Your task to perform on an android device: turn pop-ups on in chrome Image 0: 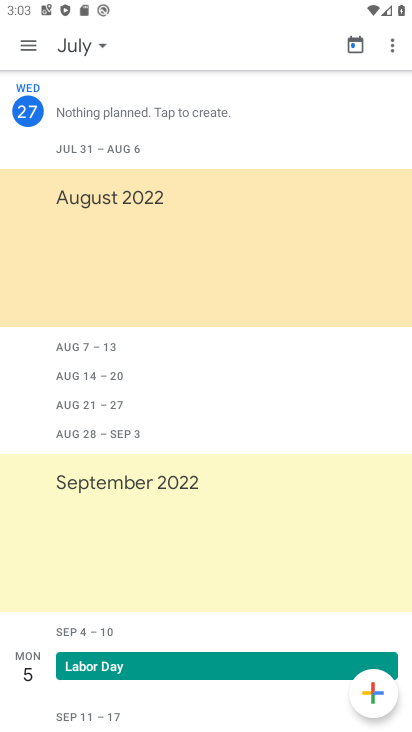
Step 0: press back button
Your task to perform on an android device: turn pop-ups on in chrome Image 1: 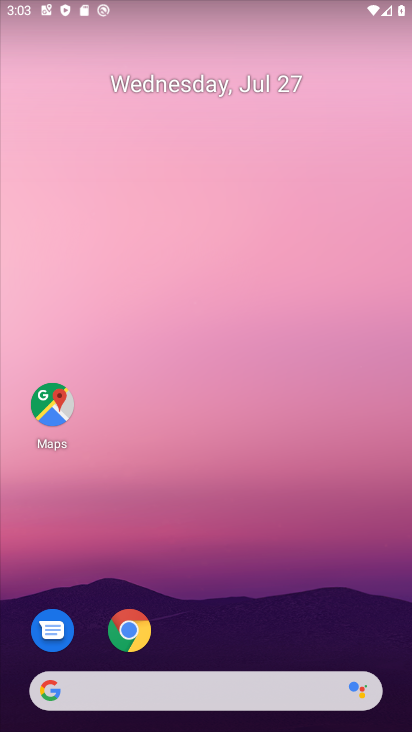
Step 1: drag from (213, 471) to (140, 139)
Your task to perform on an android device: turn pop-ups on in chrome Image 2: 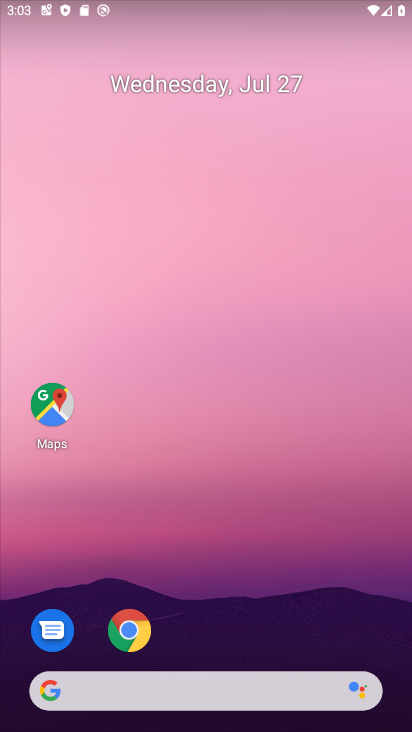
Step 2: drag from (189, 530) to (161, 181)
Your task to perform on an android device: turn pop-ups on in chrome Image 3: 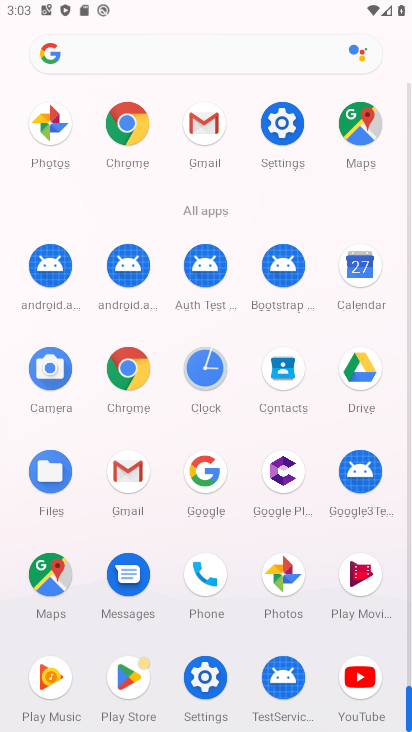
Step 3: click (123, 117)
Your task to perform on an android device: turn pop-ups on in chrome Image 4: 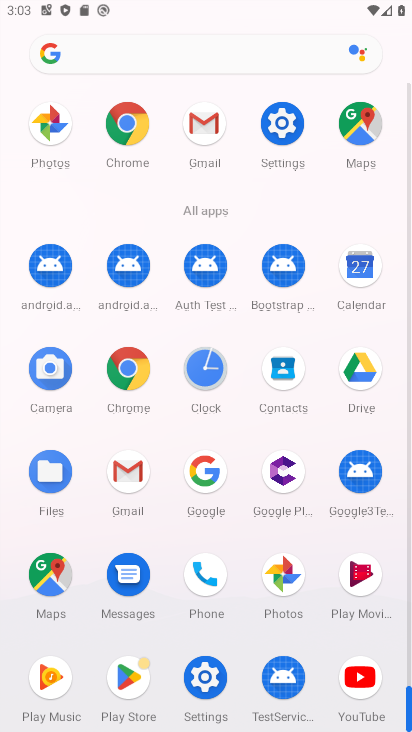
Step 4: click (123, 117)
Your task to perform on an android device: turn pop-ups on in chrome Image 5: 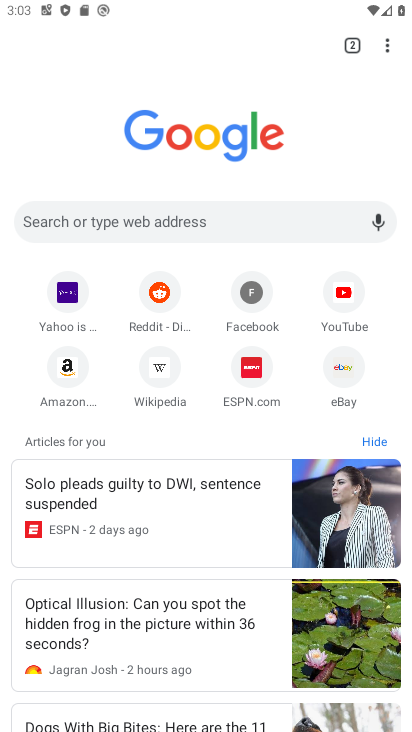
Step 5: click (383, 47)
Your task to perform on an android device: turn pop-ups on in chrome Image 6: 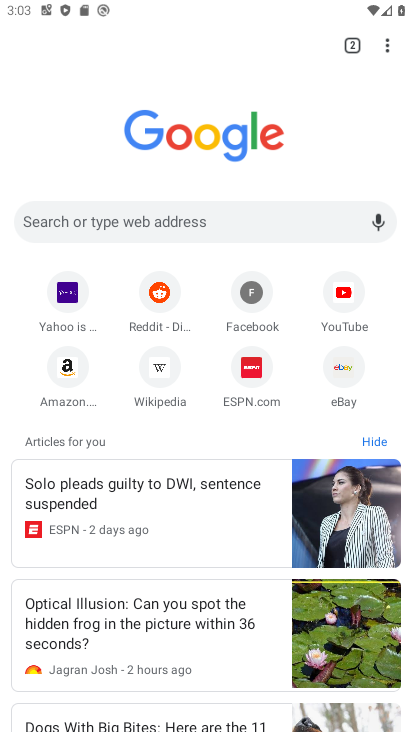
Step 6: click (384, 46)
Your task to perform on an android device: turn pop-ups on in chrome Image 7: 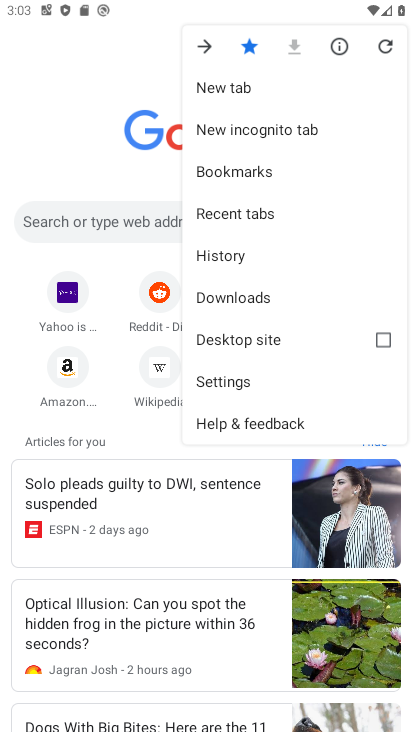
Step 7: click (209, 376)
Your task to perform on an android device: turn pop-ups on in chrome Image 8: 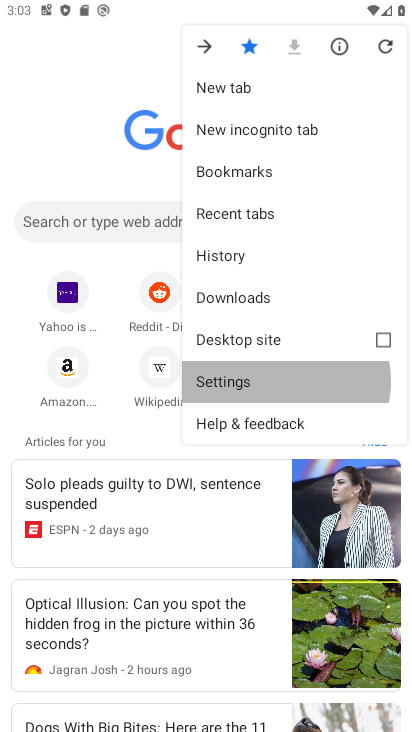
Step 8: click (208, 376)
Your task to perform on an android device: turn pop-ups on in chrome Image 9: 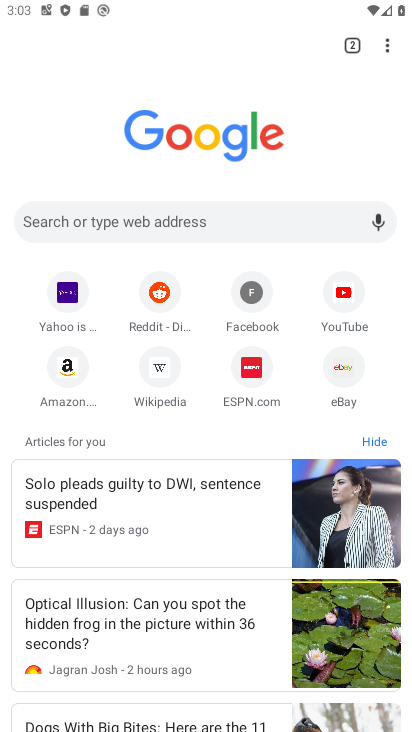
Step 9: click (208, 376)
Your task to perform on an android device: turn pop-ups on in chrome Image 10: 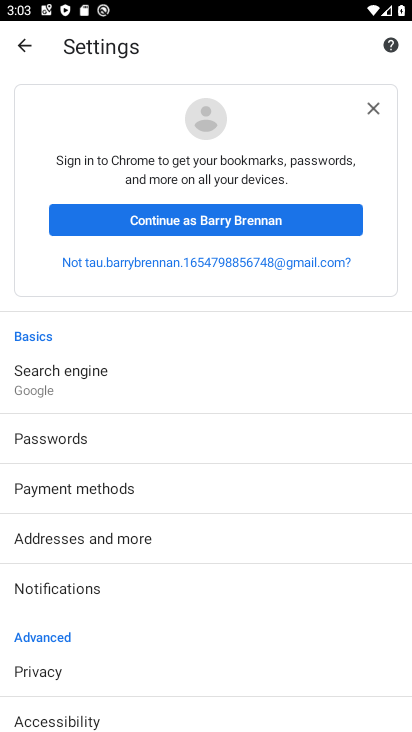
Step 10: drag from (68, 564) to (132, 176)
Your task to perform on an android device: turn pop-ups on in chrome Image 11: 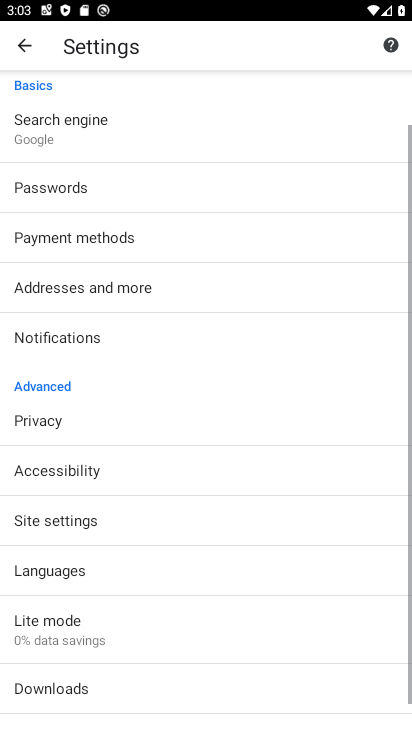
Step 11: click (95, 163)
Your task to perform on an android device: turn pop-ups on in chrome Image 12: 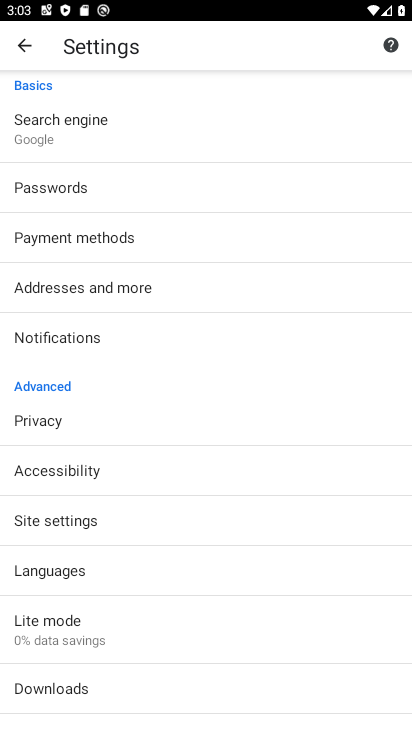
Step 12: click (40, 501)
Your task to perform on an android device: turn pop-ups on in chrome Image 13: 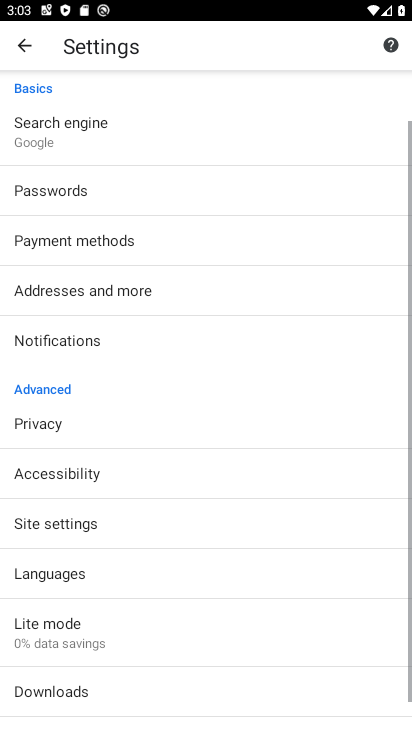
Step 13: click (48, 511)
Your task to perform on an android device: turn pop-ups on in chrome Image 14: 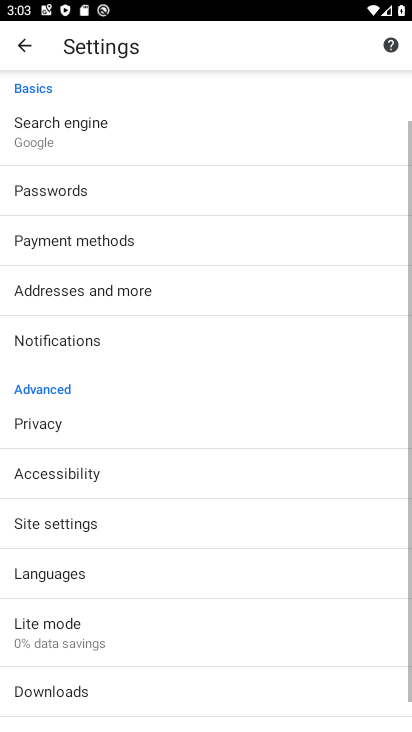
Step 14: click (50, 510)
Your task to perform on an android device: turn pop-ups on in chrome Image 15: 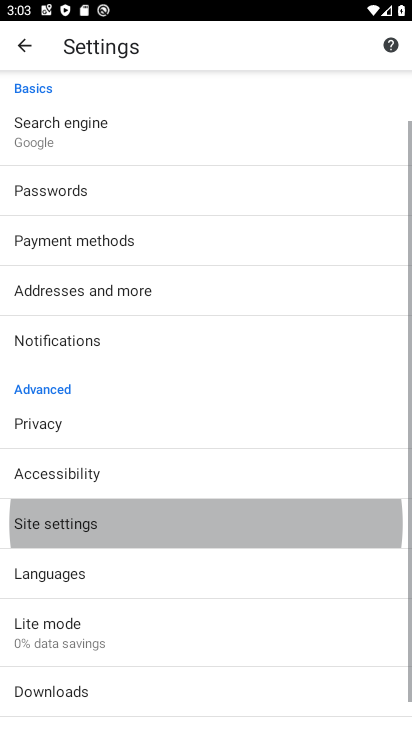
Step 15: click (50, 510)
Your task to perform on an android device: turn pop-ups on in chrome Image 16: 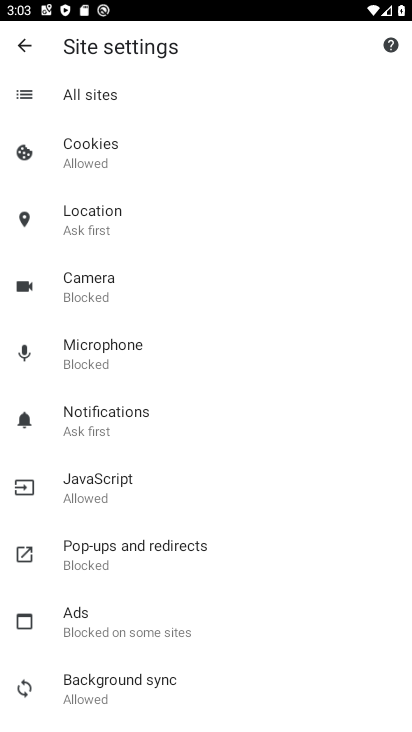
Step 16: click (102, 548)
Your task to perform on an android device: turn pop-ups on in chrome Image 17: 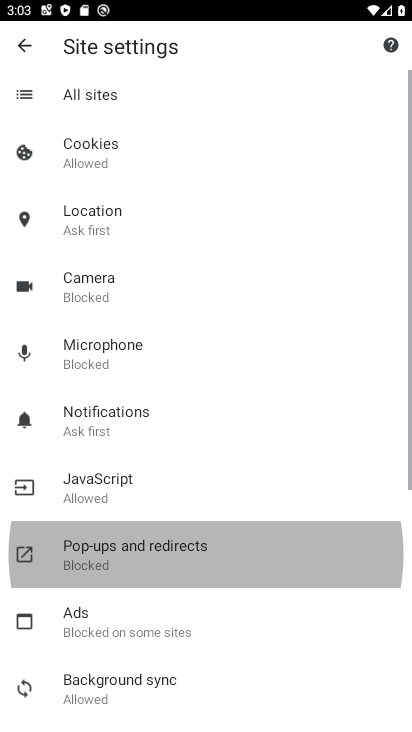
Step 17: click (102, 548)
Your task to perform on an android device: turn pop-ups on in chrome Image 18: 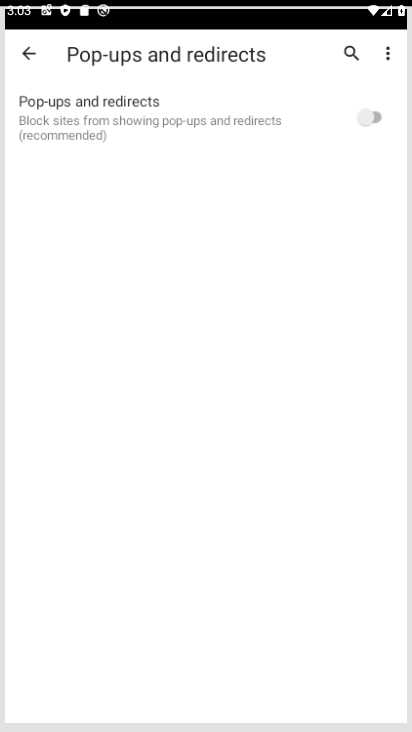
Step 18: click (102, 548)
Your task to perform on an android device: turn pop-ups on in chrome Image 19: 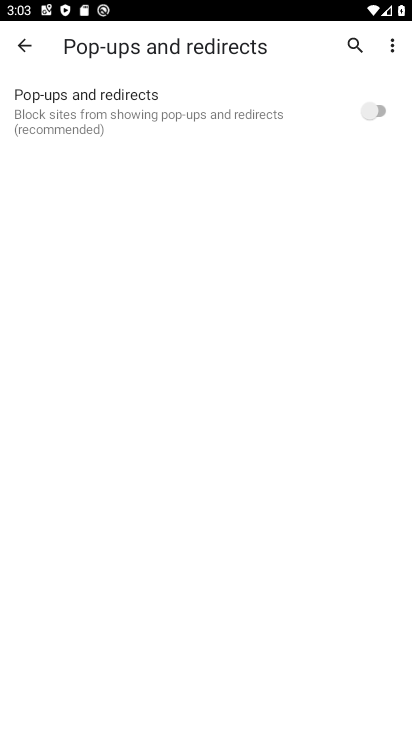
Step 19: click (366, 105)
Your task to perform on an android device: turn pop-ups on in chrome Image 20: 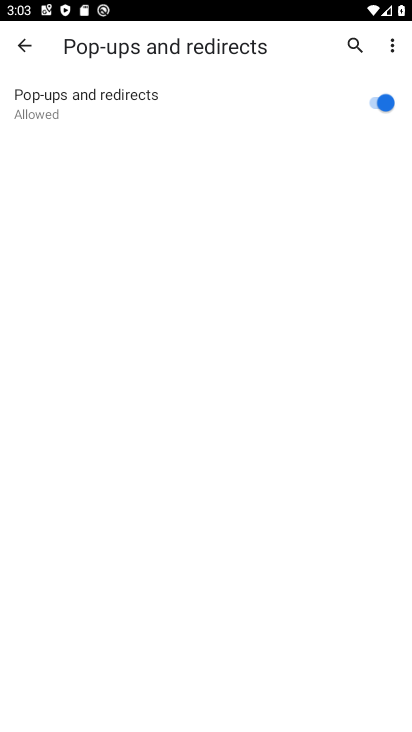
Step 20: task complete